Your task to perform on an android device: snooze an email in the gmail app Image 0: 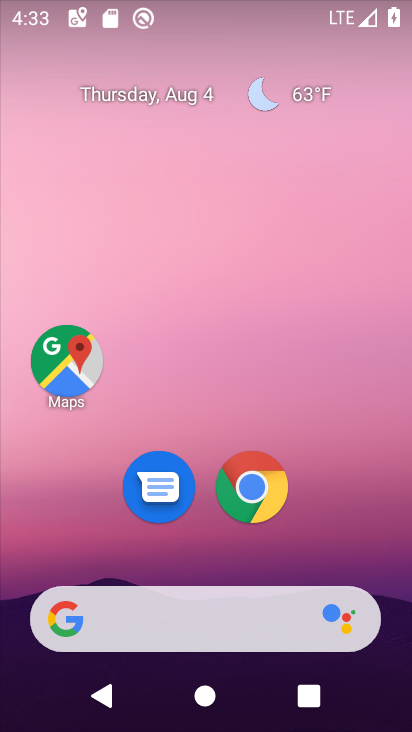
Step 0: drag from (91, 544) to (192, 83)
Your task to perform on an android device: snooze an email in the gmail app Image 1: 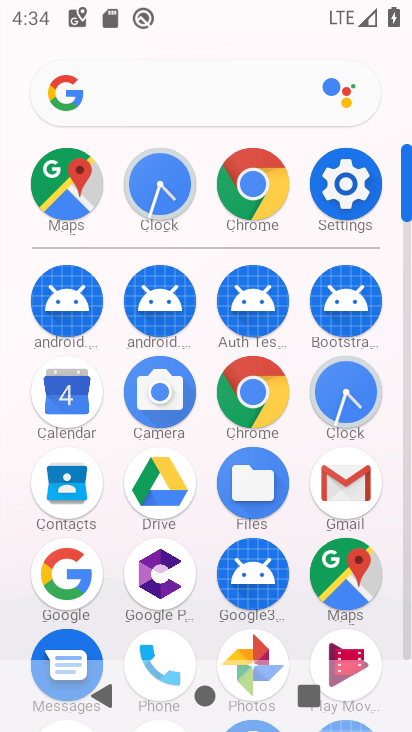
Step 1: click (360, 472)
Your task to perform on an android device: snooze an email in the gmail app Image 2: 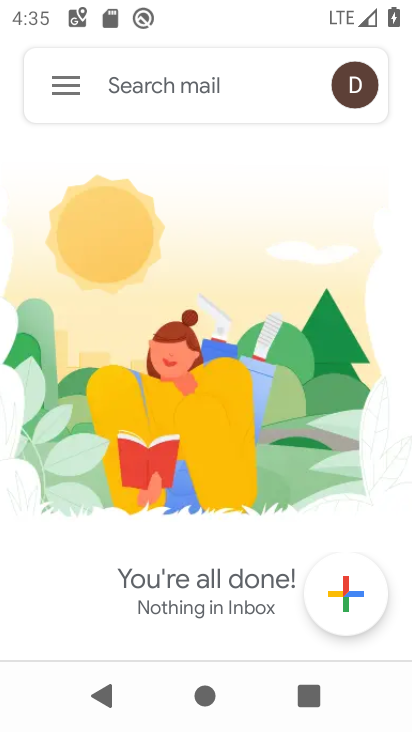
Step 2: click (66, 72)
Your task to perform on an android device: snooze an email in the gmail app Image 3: 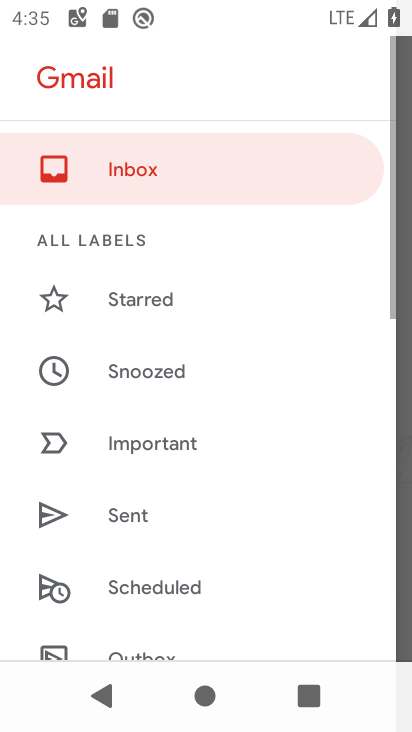
Step 3: drag from (173, 610) to (347, 103)
Your task to perform on an android device: snooze an email in the gmail app Image 4: 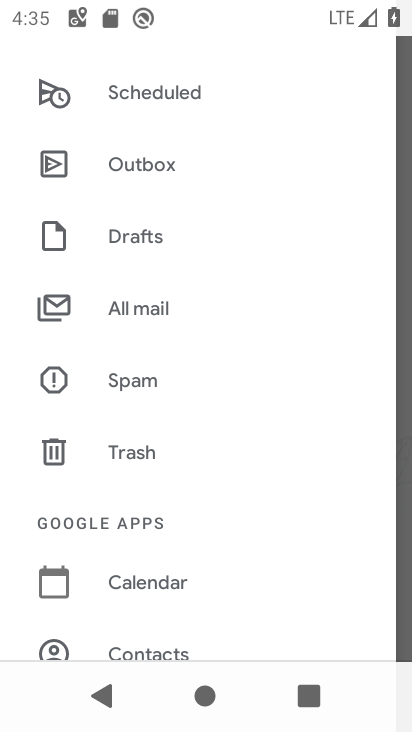
Step 4: click (148, 313)
Your task to perform on an android device: snooze an email in the gmail app Image 5: 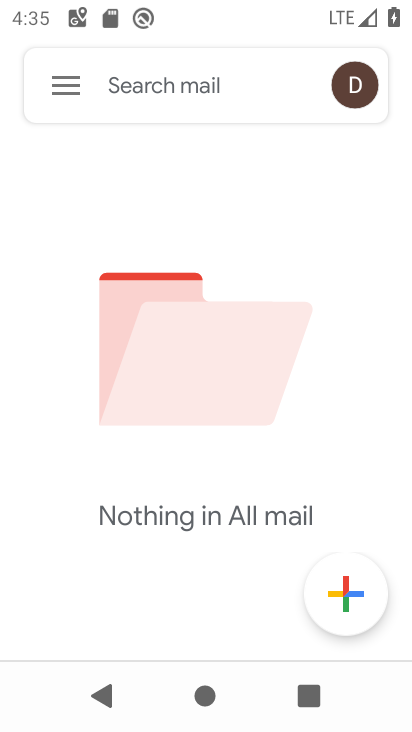
Step 5: task complete